Your task to perform on an android device: see creations saved in the google photos Image 0: 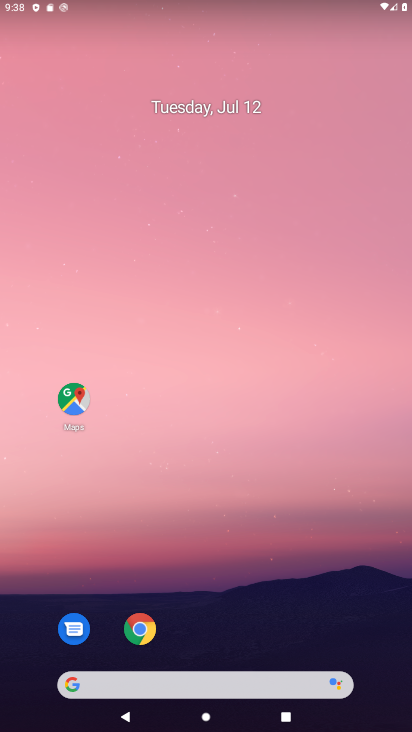
Step 0: drag from (273, 556) to (247, 171)
Your task to perform on an android device: see creations saved in the google photos Image 1: 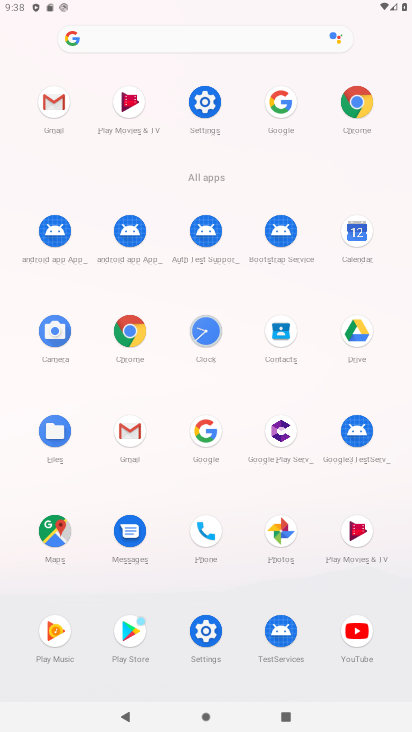
Step 1: click (291, 535)
Your task to perform on an android device: see creations saved in the google photos Image 2: 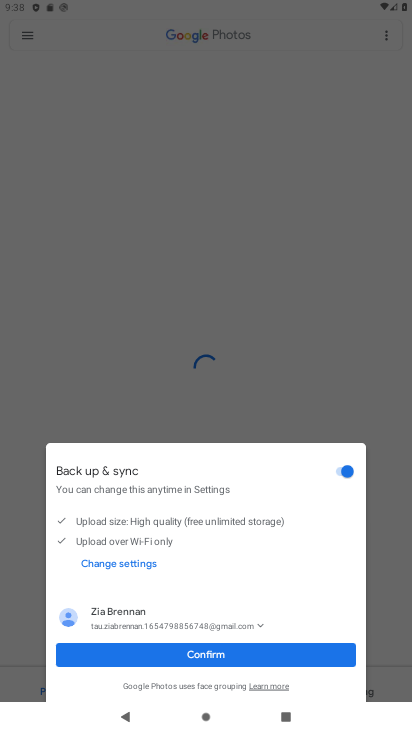
Step 2: click (261, 646)
Your task to perform on an android device: see creations saved in the google photos Image 3: 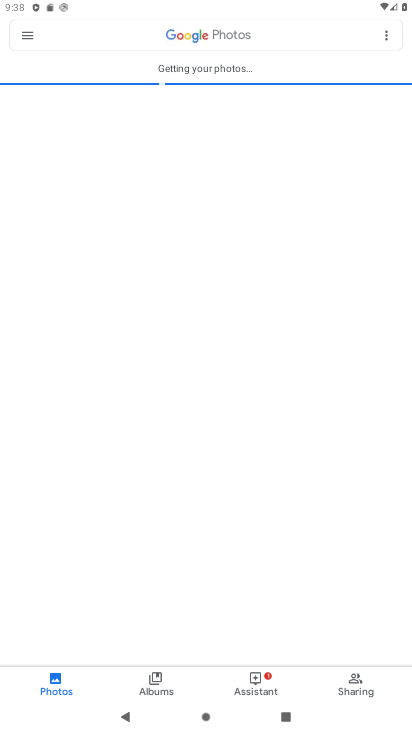
Step 3: click (261, 649)
Your task to perform on an android device: see creations saved in the google photos Image 4: 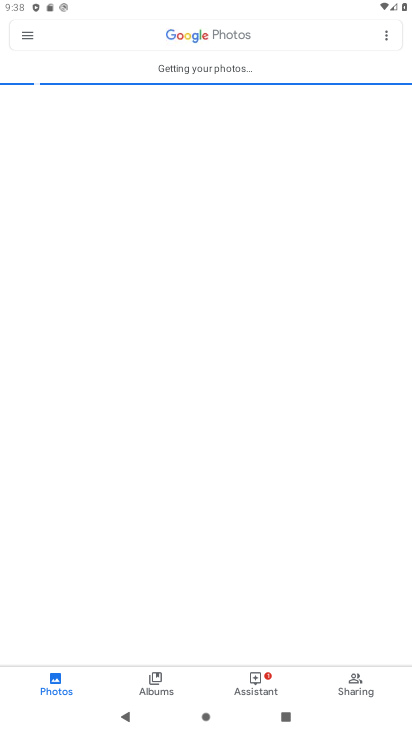
Step 4: click (256, 680)
Your task to perform on an android device: see creations saved in the google photos Image 5: 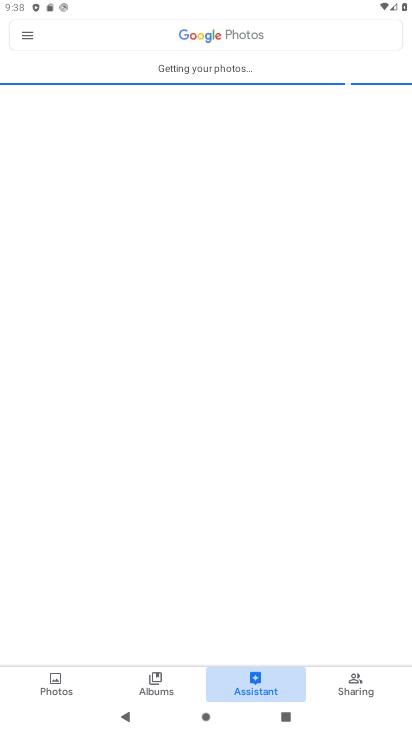
Step 5: click (256, 680)
Your task to perform on an android device: see creations saved in the google photos Image 6: 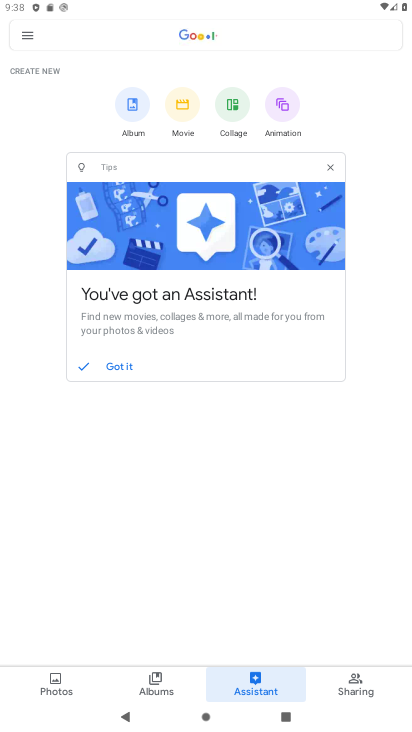
Step 6: click (256, 678)
Your task to perform on an android device: see creations saved in the google photos Image 7: 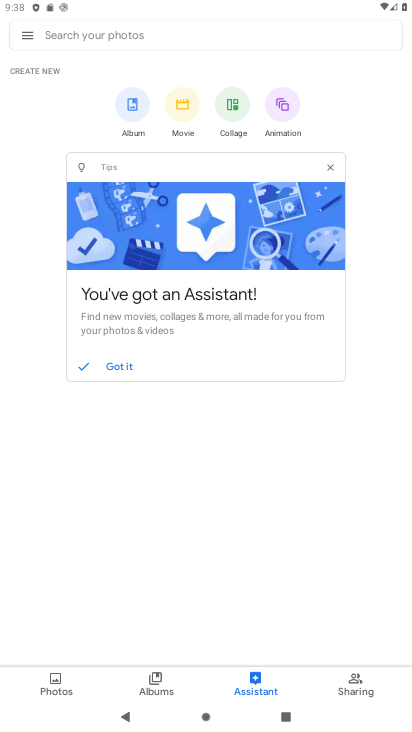
Step 7: task complete